Your task to perform on an android device: turn notification dots off Image 0: 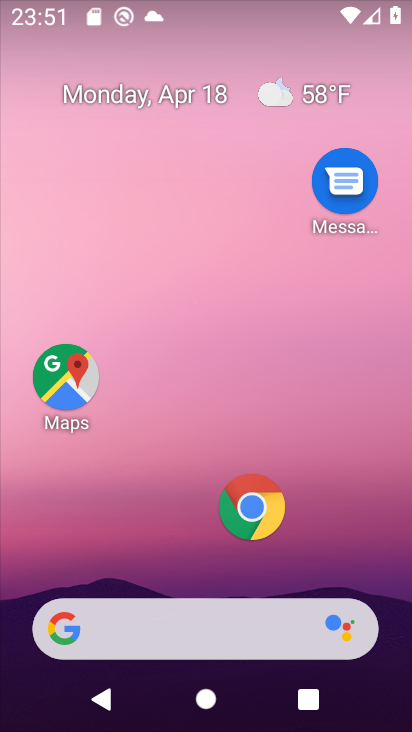
Step 0: drag from (199, 576) to (235, 71)
Your task to perform on an android device: turn notification dots off Image 1: 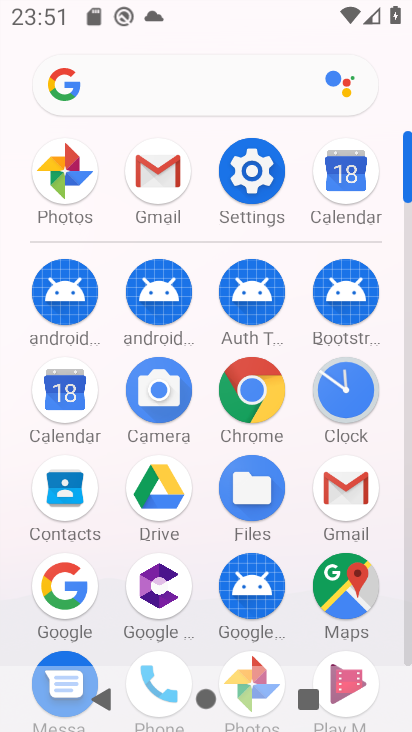
Step 1: click (261, 187)
Your task to perform on an android device: turn notification dots off Image 2: 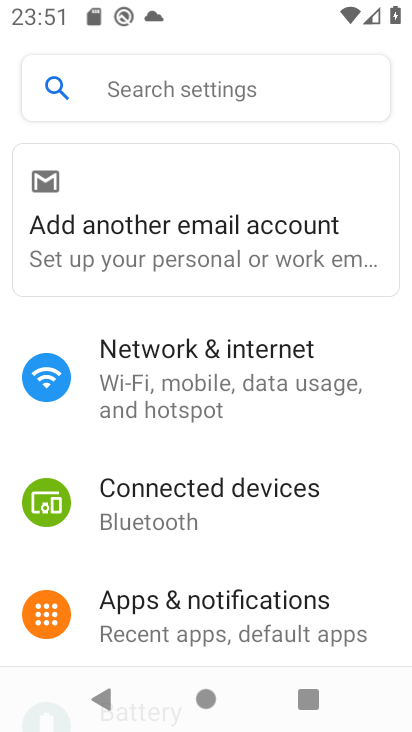
Step 2: drag from (197, 567) to (222, 418)
Your task to perform on an android device: turn notification dots off Image 3: 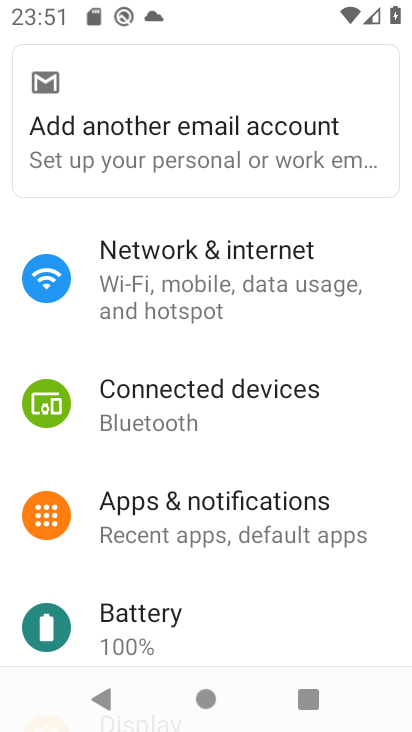
Step 3: click (204, 525)
Your task to perform on an android device: turn notification dots off Image 4: 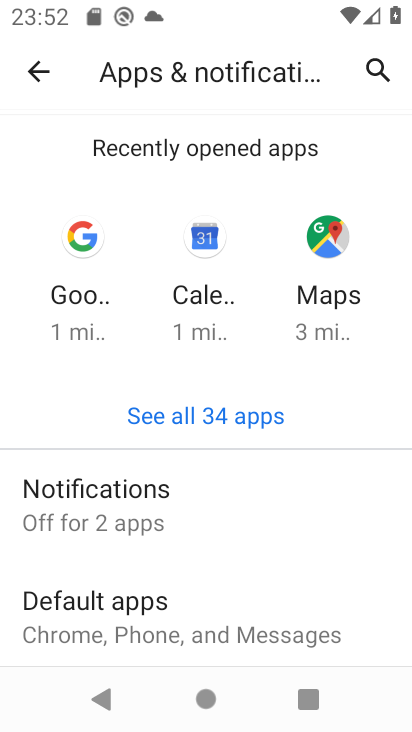
Step 4: click (143, 534)
Your task to perform on an android device: turn notification dots off Image 5: 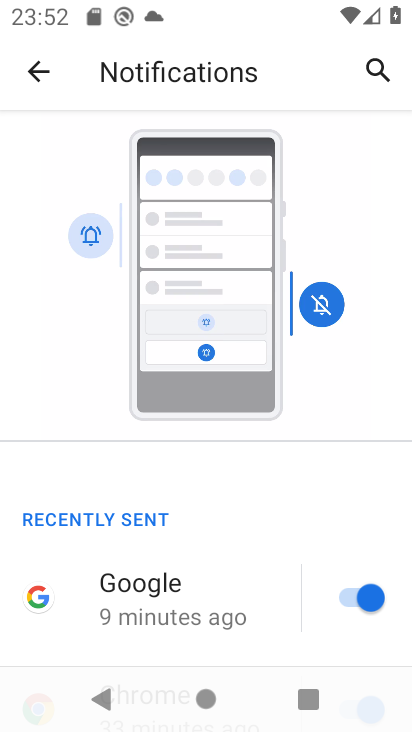
Step 5: drag from (125, 607) to (195, 206)
Your task to perform on an android device: turn notification dots off Image 6: 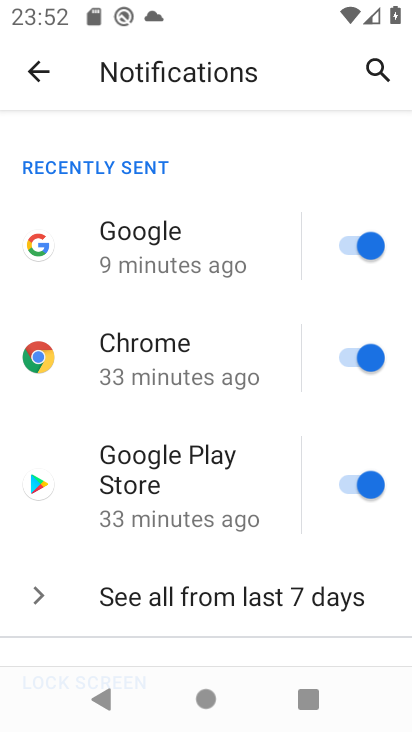
Step 6: drag from (183, 479) to (280, 5)
Your task to perform on an android device: turn notification dots off Image 7: 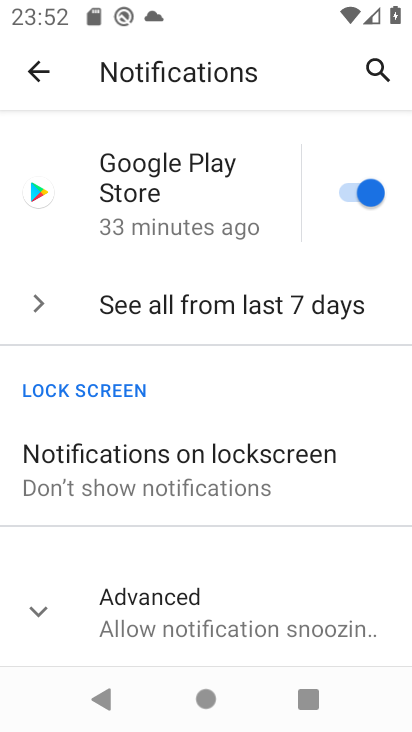
Step 7: click (180, 604)
Your task to perform on an android device: turn notification dots off Image 8: 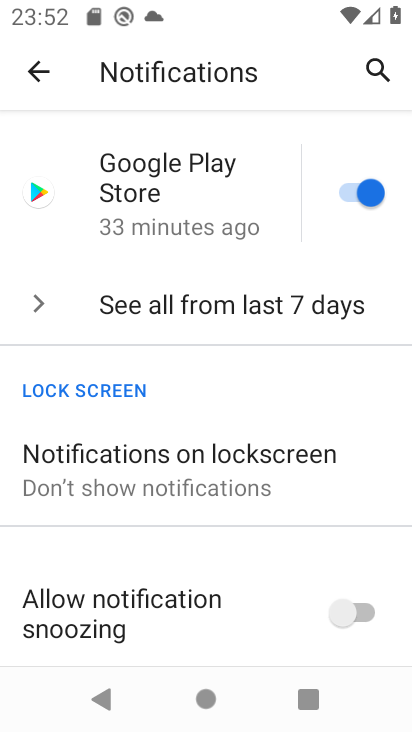
Step 8: drag from (150, 552) to (229, 214)
Your task to perform on an android device: turn notification dots off Image 9: 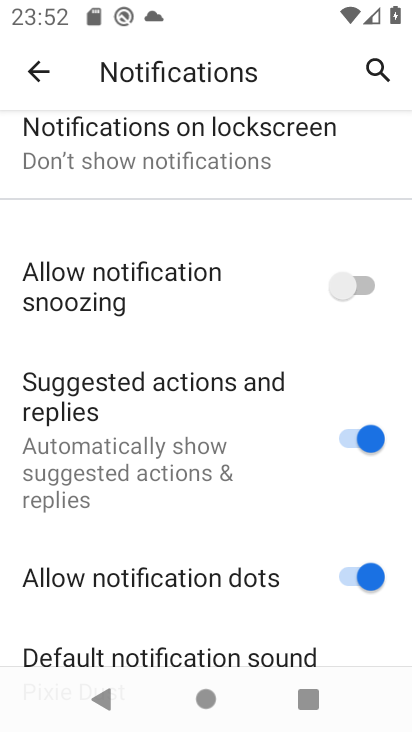
Step 9: click (343, 574)
Your task to perform on an android device: turn notification dots off Image 10: 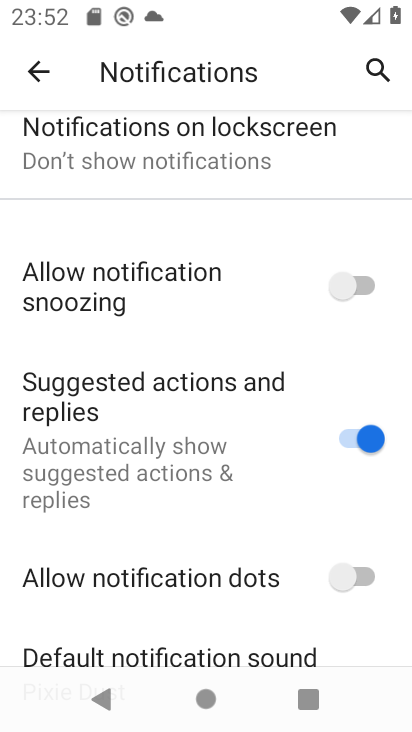
Step 10: task complete